Your task to perform on an android device: Go to battery settings Image 0: 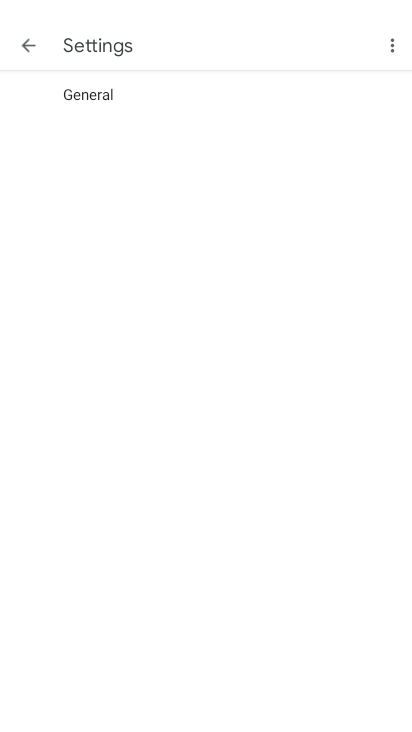
Step 0: press back button
Your task to perform on an android device: Go to battery settings Image 1: 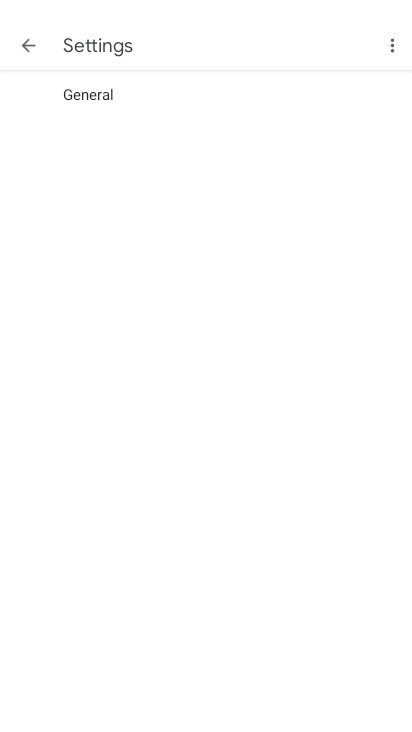
Step 1: press back button
Your task to perform on an android device: Go to battery settings Image 2: 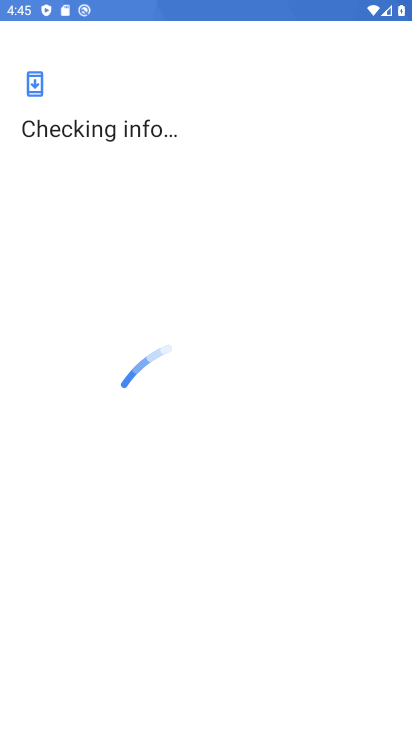
Step 2: click (27, 41)
Your task to perform on an android device: Go to battery settings Image 3: 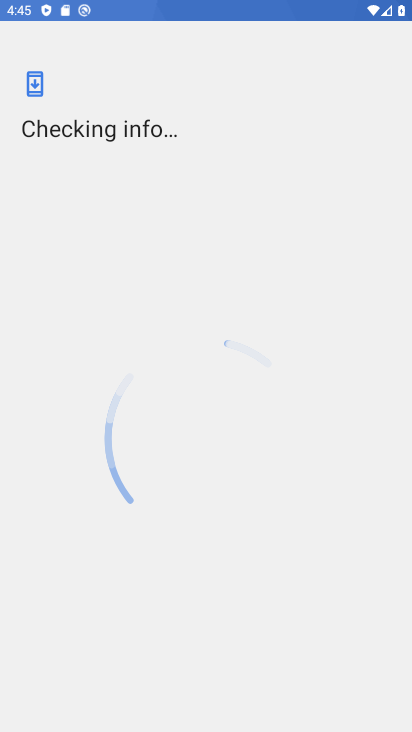
Step 3: press home button
Your task to perform on an android device: Go to battery settings Image 4: 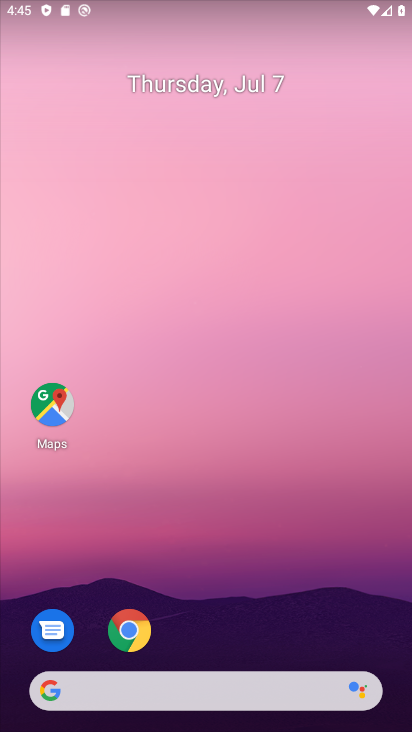
Step 4: drag from (325, 595) to (302, 284)
Your task to perform on an android device: Go to battery settings Image 5: 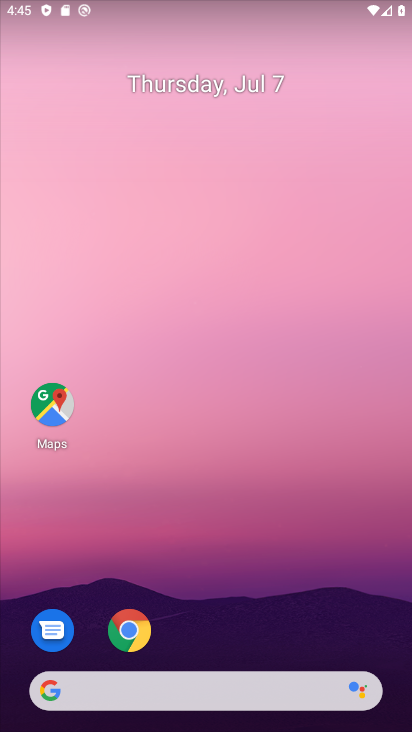
Step 5: click (235, 334)
Your task to perform on an android device: Go to battery settings Image 6: 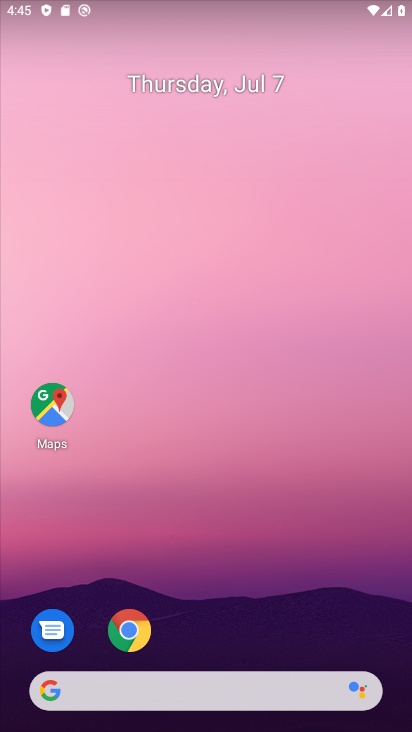
Step 6: drag from (267, 512) to (258, 251)
Your task to perform on an android device: Go to battery settings Image 7: 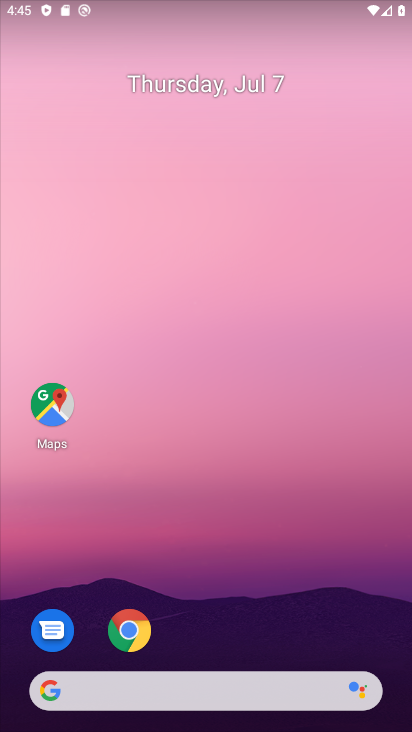
Step 7: drag from (248, 669) to (210, 300)
Your task to perform on an android device: Go to battery settings Image 8: 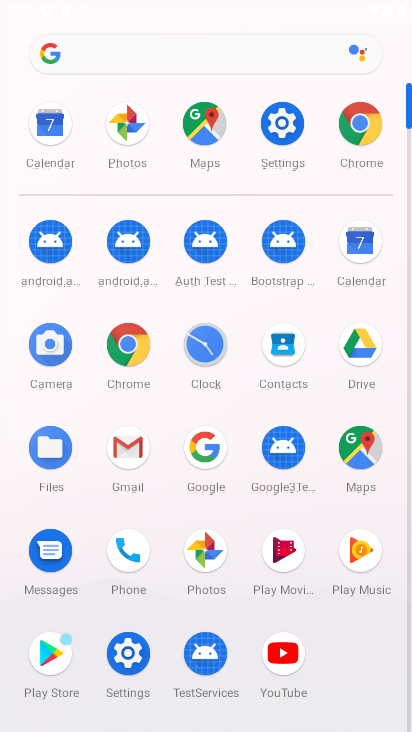
Step 8: click (285, 124)
Your task to perform on an android device: Go to battery settings Image 9: 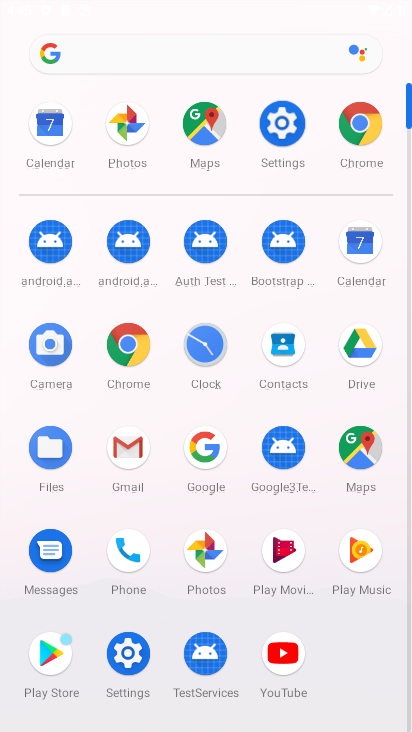
Step 9: click (292, 122)
Your task to perform on an android device: Go to battery settings Image 10: 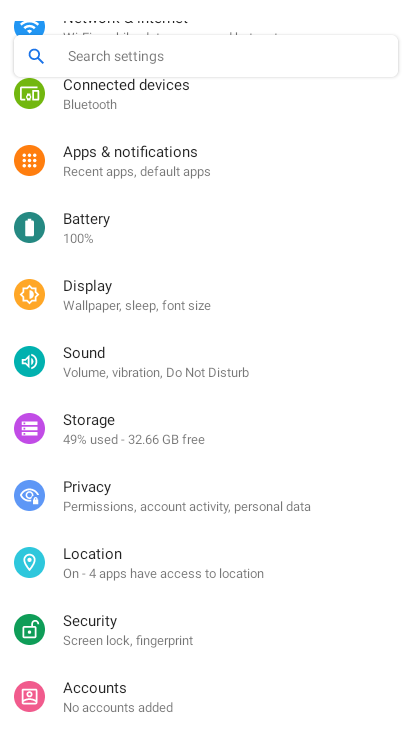
Step 10: click (75, 243)
Your task to perform on an android device: Go to battery settings Image 11: 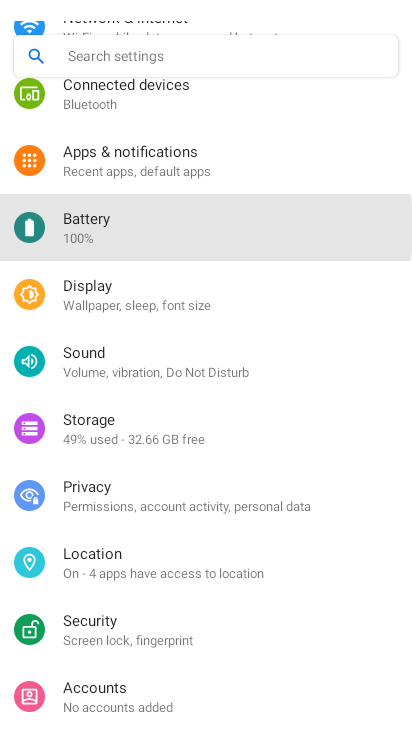
Step 11: click (75, 243)
Your task to perform on an android device: Go to battery settings Image 12: 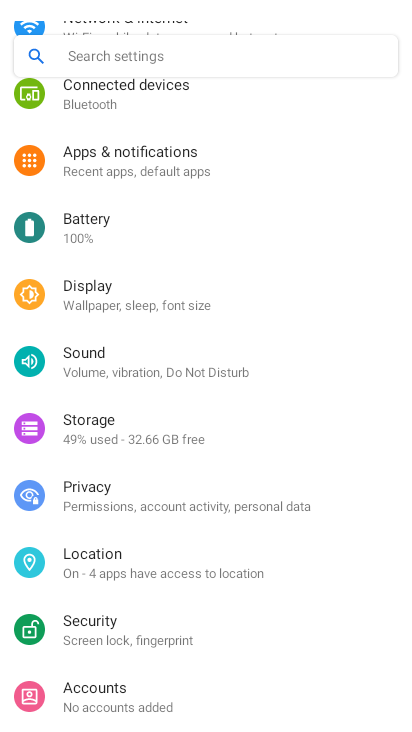
Step 12: click (75, 243)
Your task to perform on an android device: Go to battery settings Image 13: 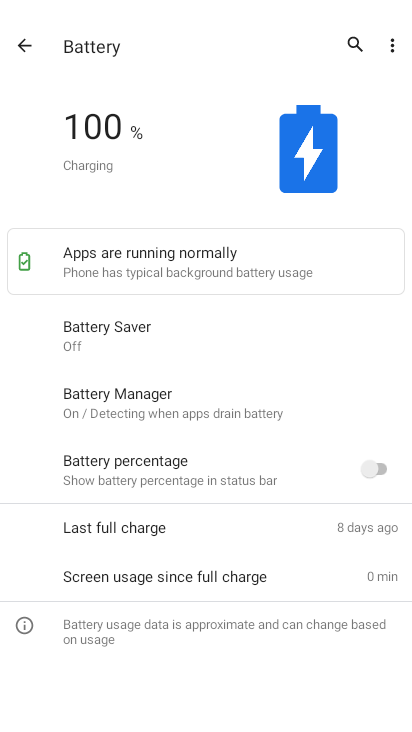
Step 13: task complete